Your task to perform on an android device: turn vacation reply on in the gmail app Image 0: 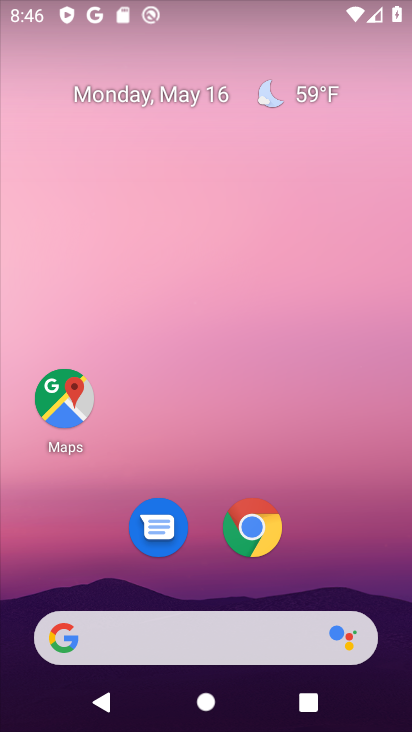
Step 0: drag from (307, 541) to (318, 182)
Your task to perform on an android device: turn vacation reply on in the gmail app Image 1: 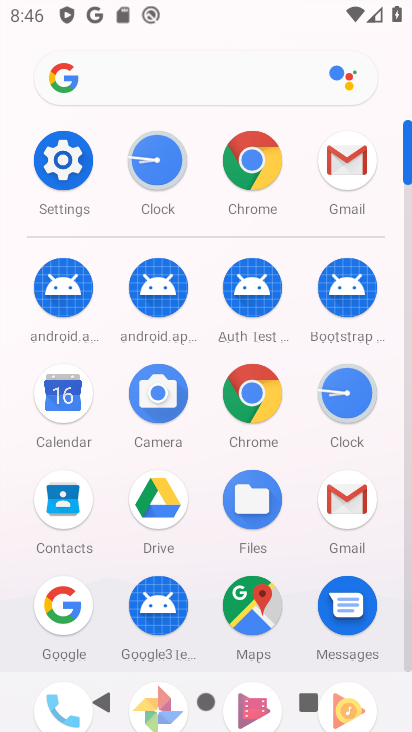
Step 1: click (355, 491)
Your task to perform on an android device: turn vacation reply on in the gmail app Image 2: 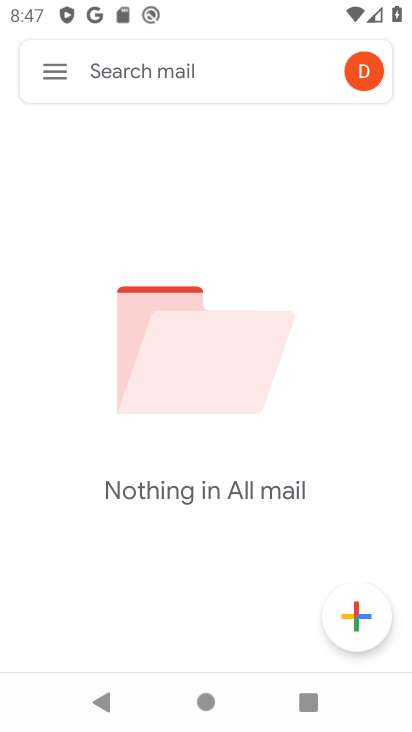
Step 2: click (48, 62)
Your task to perform on an android device: turn vacation reply on in the gmail app Image 3: 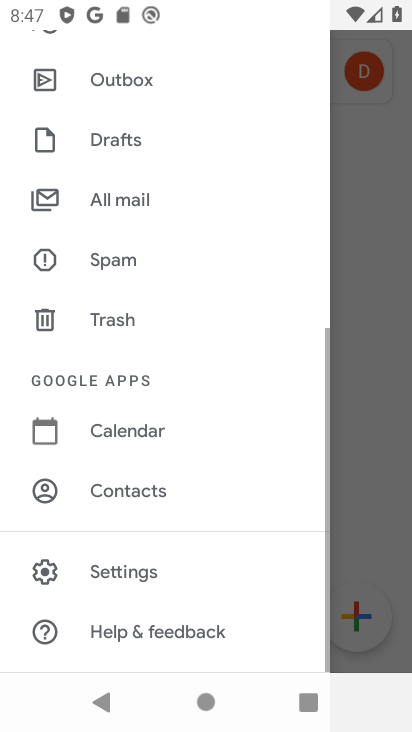
Step 3: click (127, 584)
Your task to perform on an android device: turn vacation reply on in the gmail app Image 4: 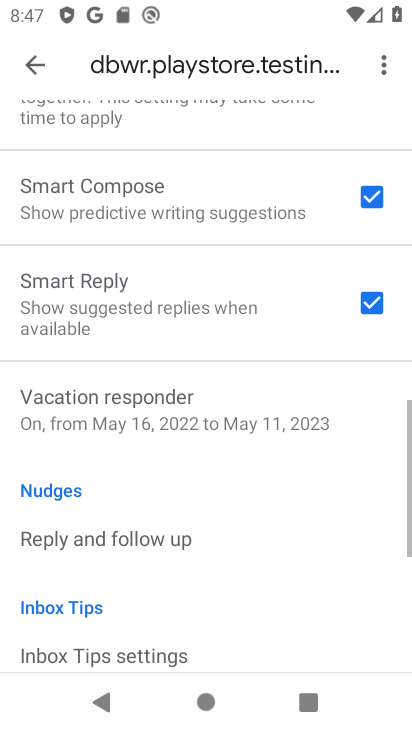
Step 4: click (138, 473)
Your task to perform on an android device: turn vacation reply on in the gmail app Image 5: 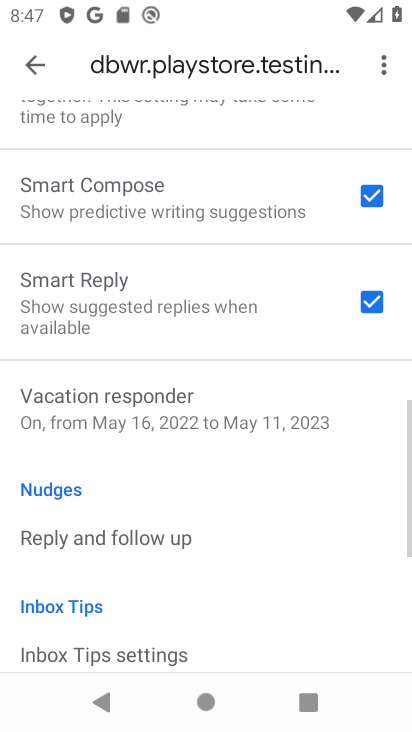
Step 5: click (171, 385)
Your task to perform on an android device: turn vacation reply on in the gmail app Image 6: 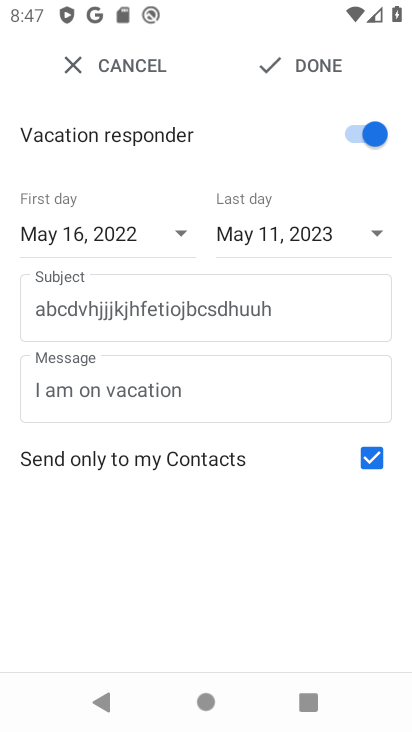
Step 6: task complete